Your task to perform on an android device: open chrome and create a bookmark for the current page Image 0: 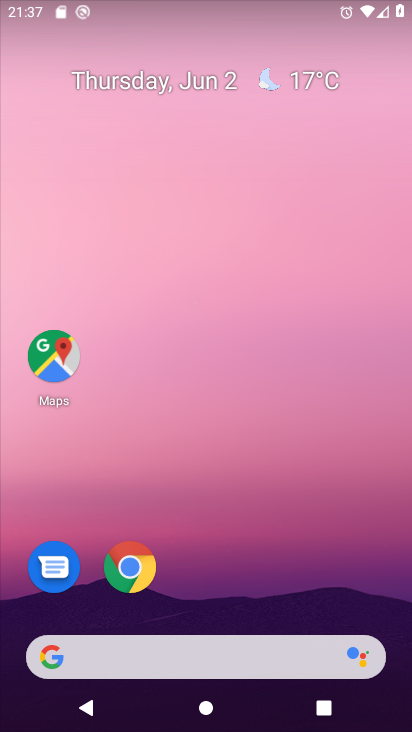
Step 0: click (142, 564)
Your task to perform on an android device: open chrome and create a bookmark for the current page Image 1: 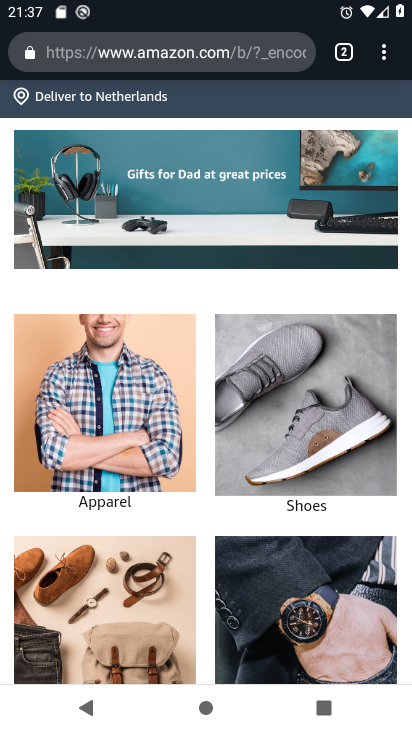
Step 1: click (390, 58)
Your task to perform on an android device: open chrome and create a bookmark for the current page Image 2: 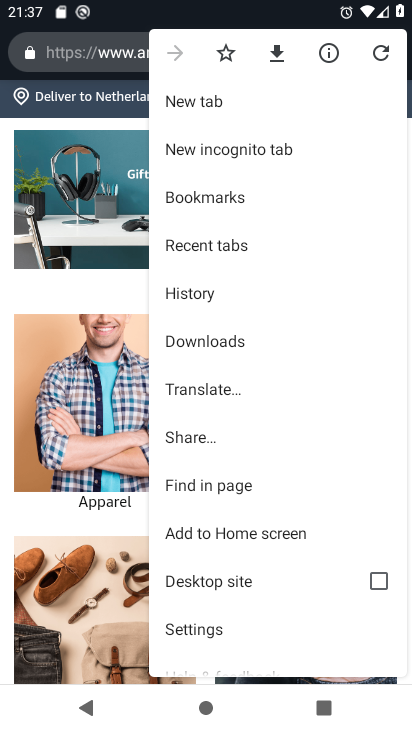
Step 2: click (225, 54)
Your task to perform on an android device: open chrome and create a bookmark for the current page Image 3: 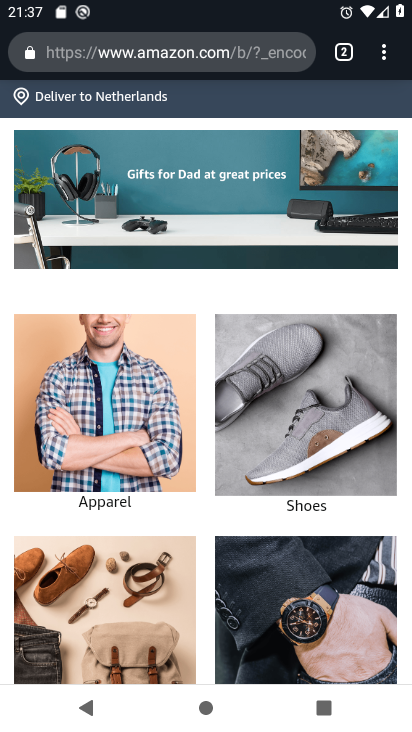
Step 3: task complete